Your task to perform on an android device: Open the phone app and click the voicemail tab. Image 0: 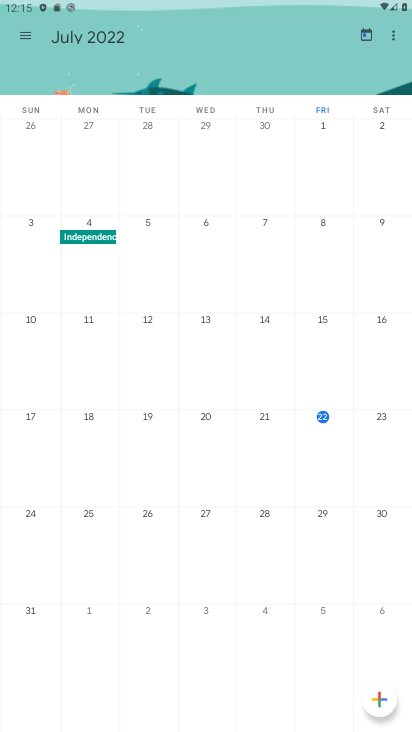
Step 0: task complete